Your task to perform on an android device: toggle wifi Image 0: 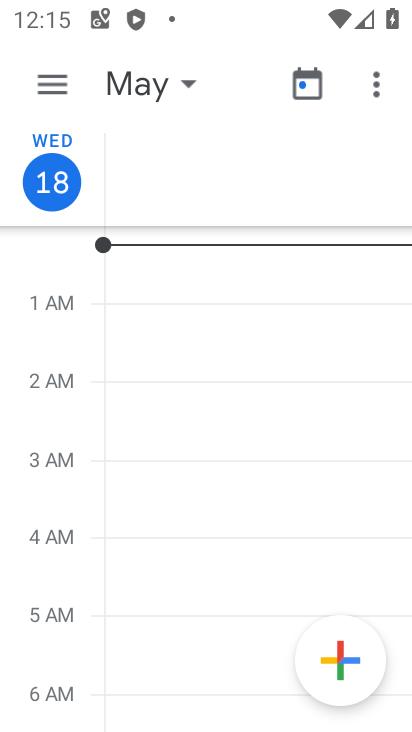
Step 0: press home button
Your task to perform on an android device: toggle wifi Image 1: 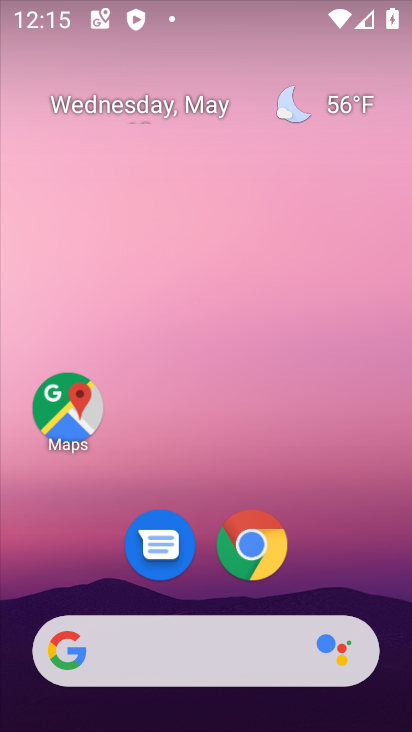
Step 1: drag from (344, 634) to (347, 342)
Your task to perform on an android device: toggle wifi Image 2: 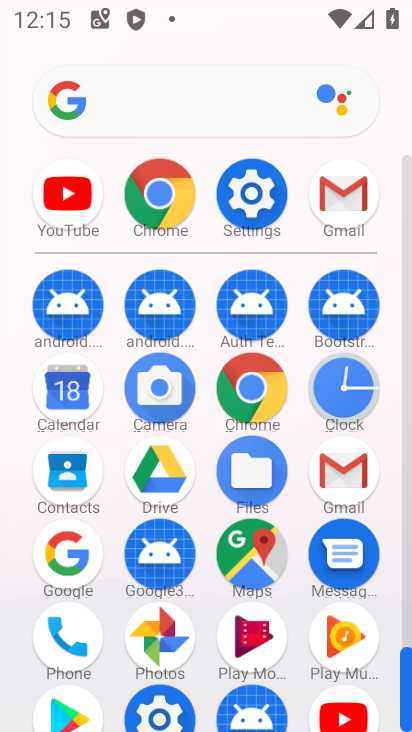
Step 2: click (244, 220)
Your task to perform on an android device: toggle wifi Image 3: 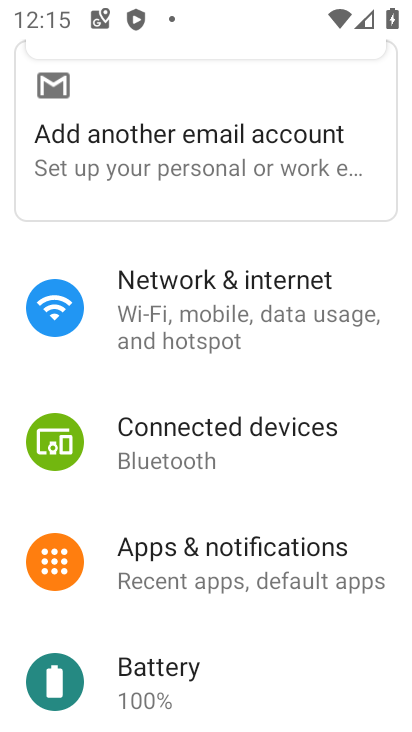
Step 3: click (220, 344)
Your task to perform on an android device: toggle wifi Image 4: 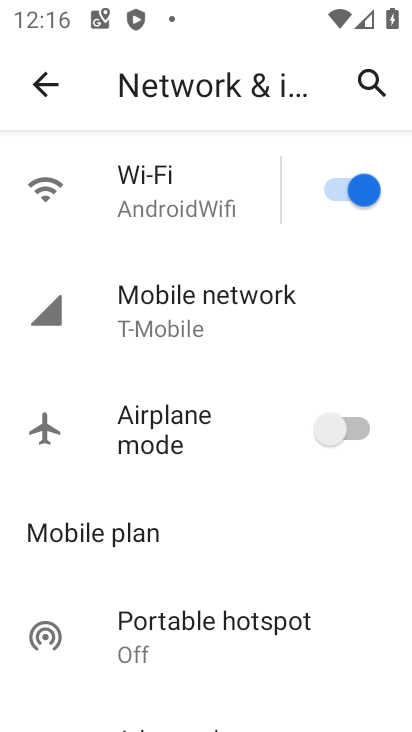
Step 4: click (354, 185)
Your task to perform on an android device: toggle wifi Image 5: 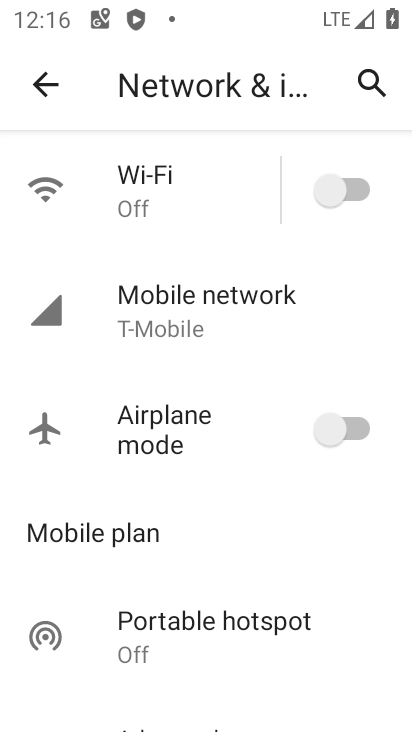
Step 5: task complete